Your task to perform on an android device: Go to ESPN.com Image 0: 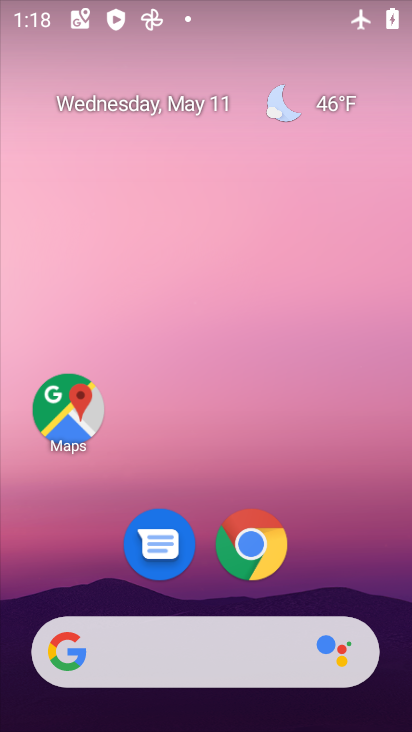
Step 0: click (249, 545)
Your task to perform on an android device: Go to ESPN.com Image 1: 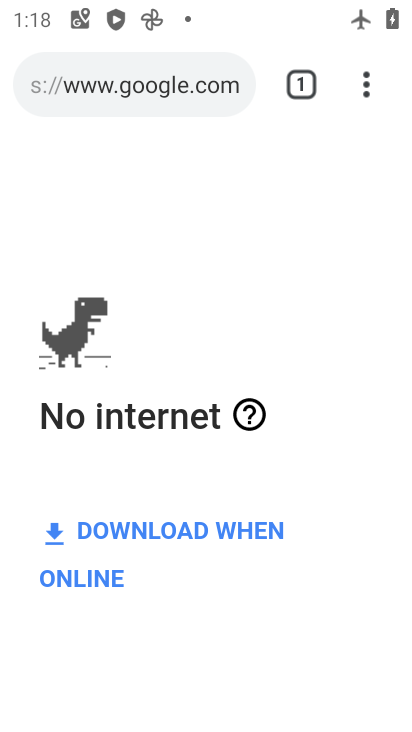
Step 1: click (104, 84)
Your task to perform on an android device: Go to ESPN.com Image 2: 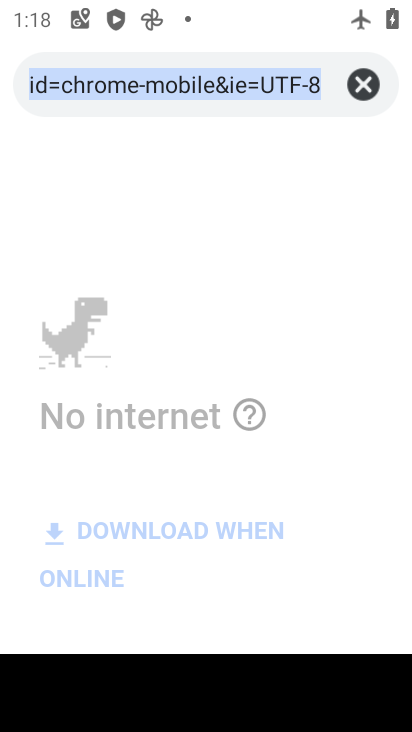
Step 2: click (359, 79)
Your task to perform on an android device: Go to ESPN.com Image 3: 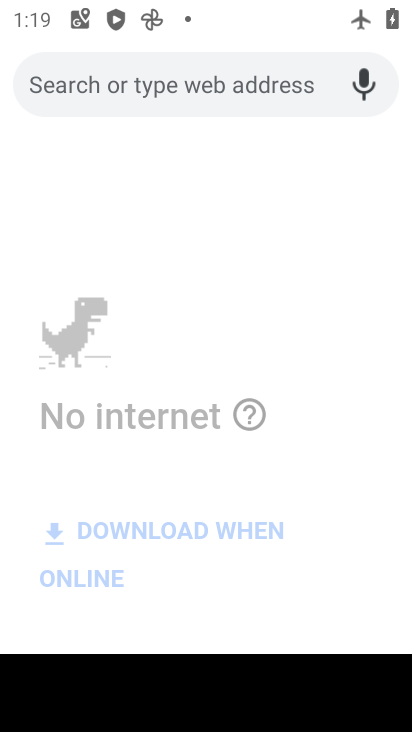
Step 3: type "espn.com"
Your task to perform on an android device: Go to ESPN.com Image 4: 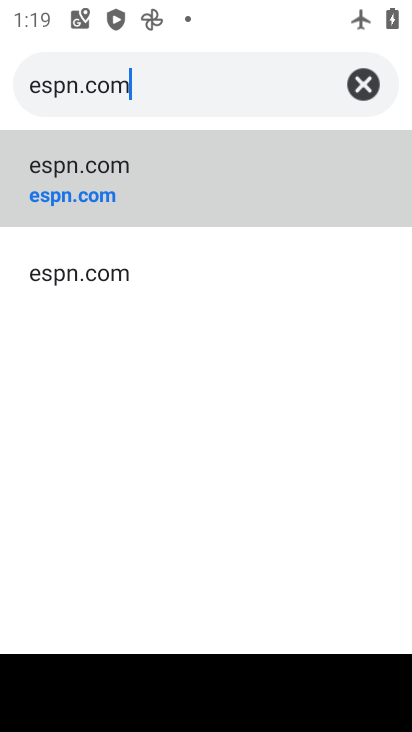
Step 4: click (95, 173)
Your task to perform on an android device: Go to ESPN.com Image 5: 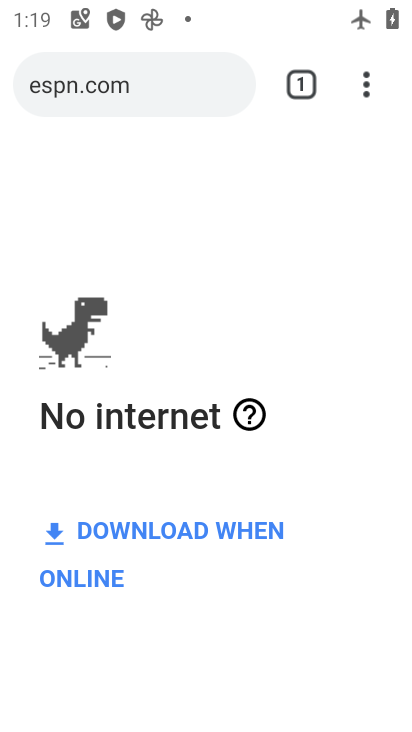
Step 5: task complete